Your task to perform on an android device: Open Amazon Image 0: 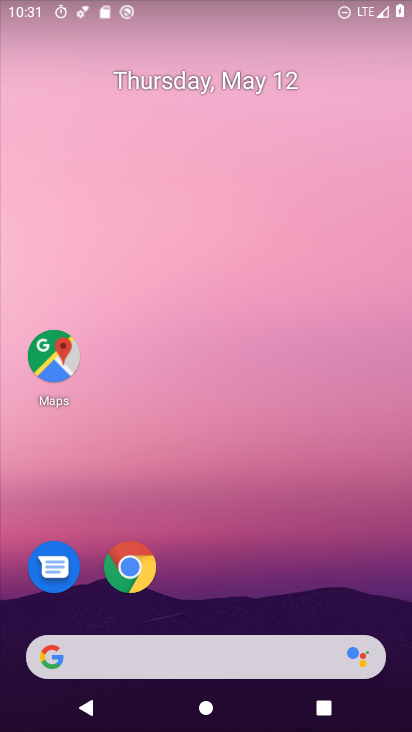
Step 0: drag from (230, 582) to (246, 299)
Your task to perform on an android device: Open Amazon Image 1: 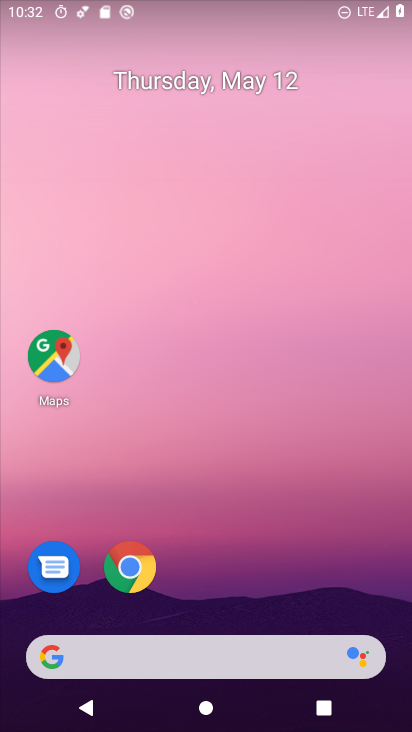
Step 1: drag from (226, 605) to (234, 200)
Your task to perform on an android device: Open Amazon Image 2: 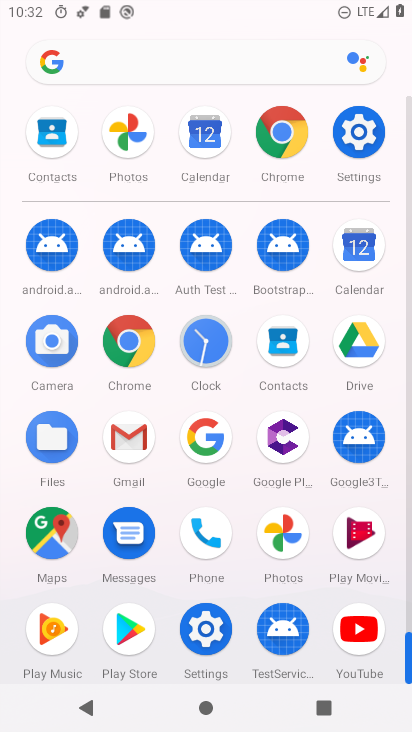
Step 2: click (285, 158)
Your task to perform on an android device: Open Amazon Image 3: 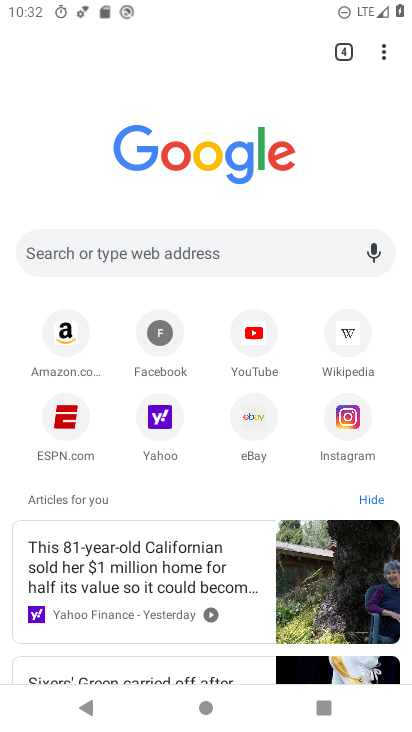
Step 3: click (83, 348)
Your task to perform on an android device: Open Amazon Image 4: 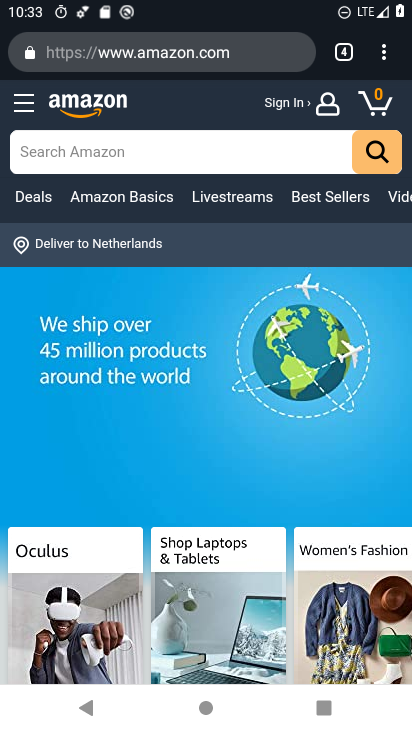
Step 4: task complete